Your task to perform on an android device: Open Google Maps and go to "Timeline" Image 0: 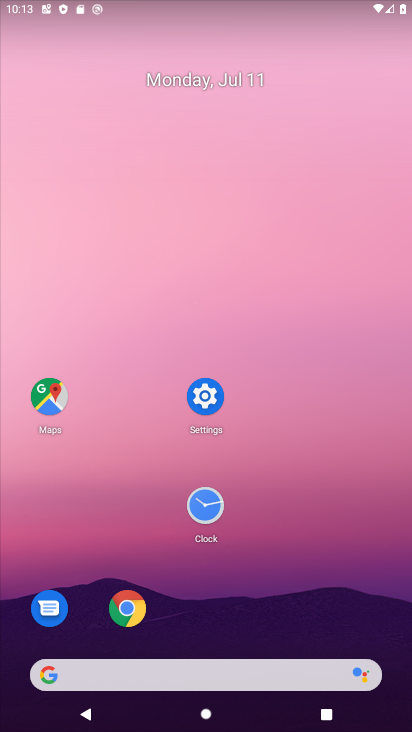
Step 0: click (55, 406)
Your task to perform on an android device: Open Google Maps and go to "Timeline" Image 1: 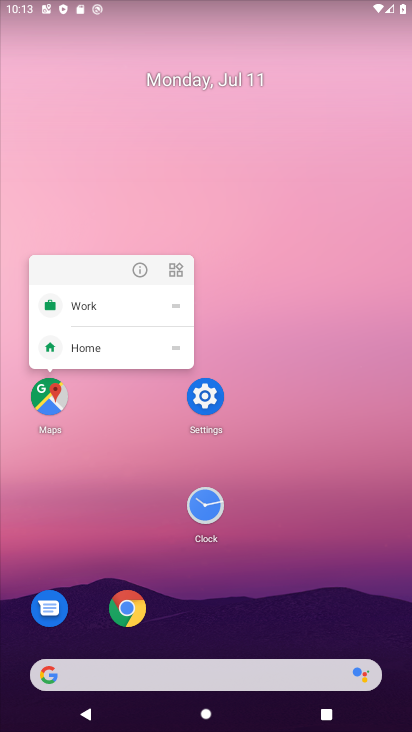
Step 1: click (55, 404)
Your task to perform on an android device: Open Google Maps and go to "Timeline" Image 2: 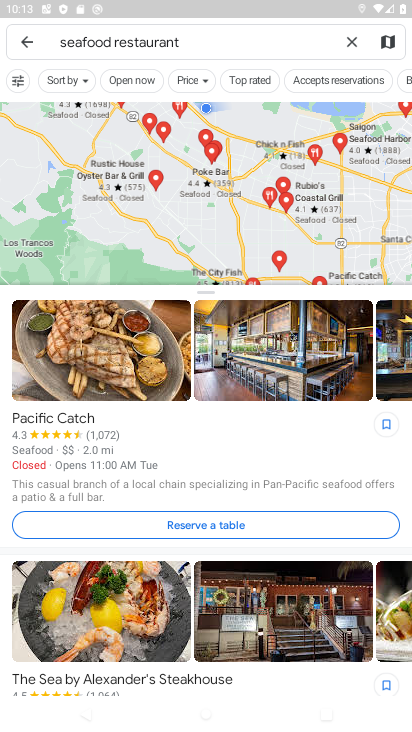
Step 2: click (358, 43)
Your task to perform on an android device: Open Google Maps and go to "Timeline" Image 3: 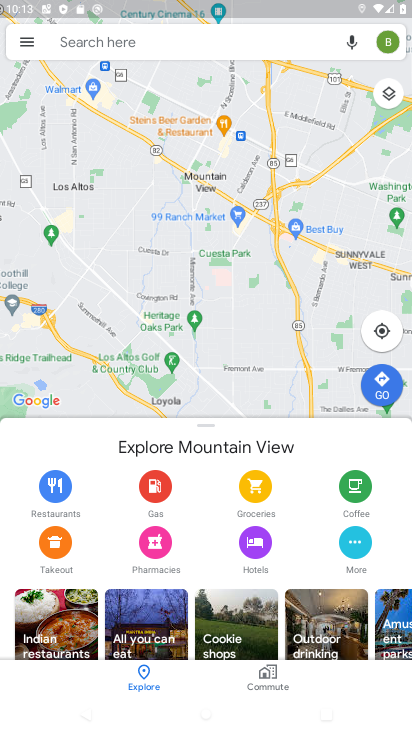
Step 3: click (25, 39)
Your task to perform on an android device: Open Google Maps and go to "Timeline" Image 4: 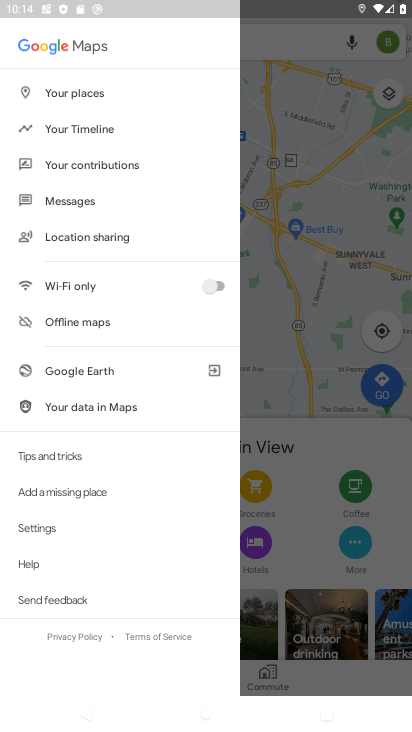
Step 4: click (68, 131)
Your task to perform on an android device: Open Google Maps and go to "Timeline" Image 5: 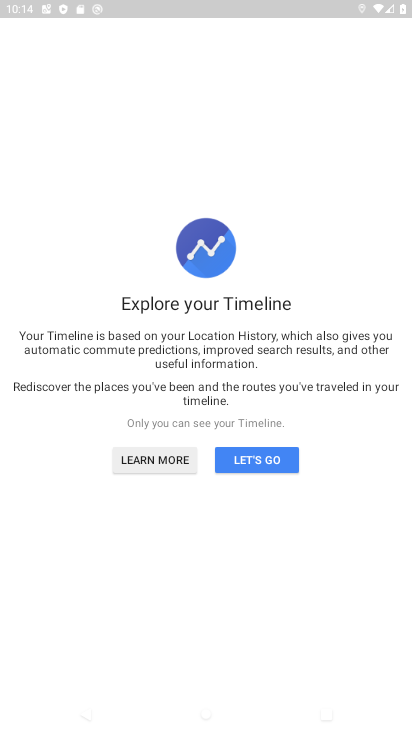
Step 5: click (272, 457)
Your task to perform on an android device: Open Google Maps and go to "Timeline" Image 6: 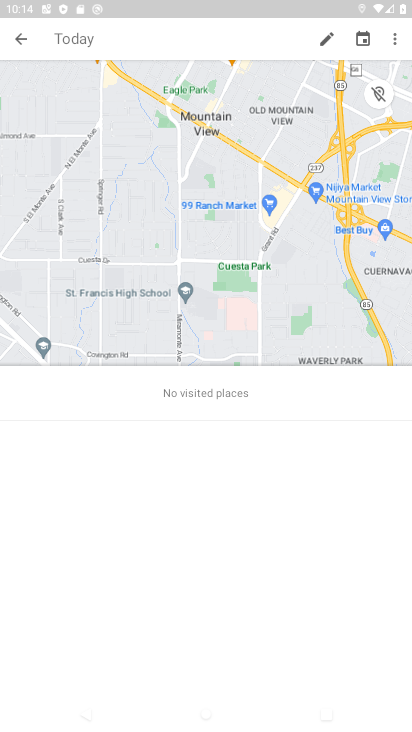
Step 6: task complete